Your task to perform on an android device: turn on showing notifications on the lock screen Image 0: 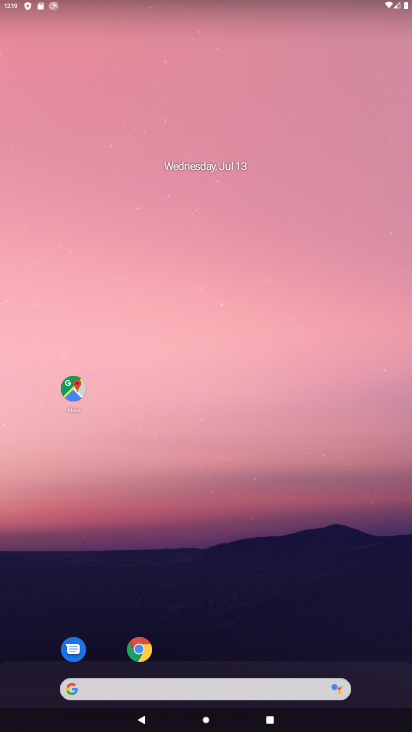
Step 0: drag from (239, 682) to (276, 176)
Your task to perform on an android device: turn on showing notifications on the lock screen Image 1: 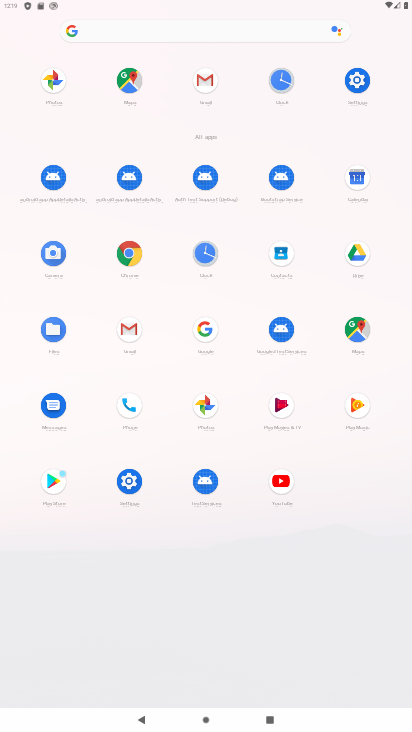
Step 1: click (132, 480)
Your task to perform on an android device: turn on showing notifications on the lock screen Image 2: 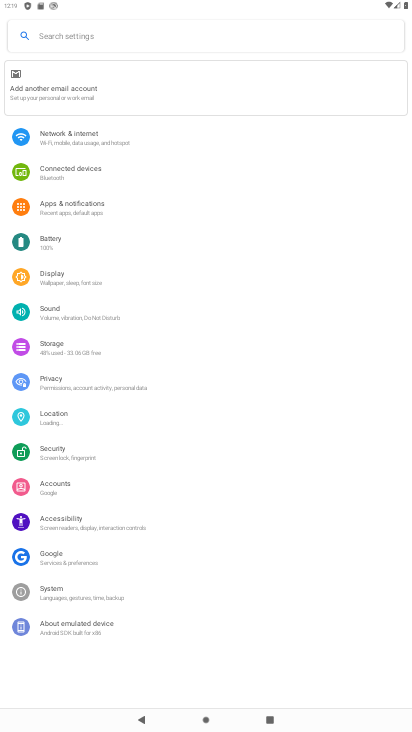
Step 2: click (91, 216)
Your task to perform on an android device: turn on showing notifications on the lock screen Image 3: 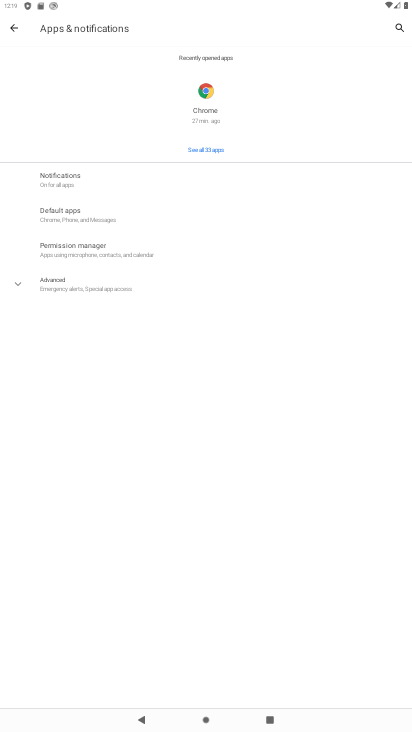
Step 3: click (141, 183)
Your task to perform on an android device: turn on showing notifications on the lock screen Image 4: 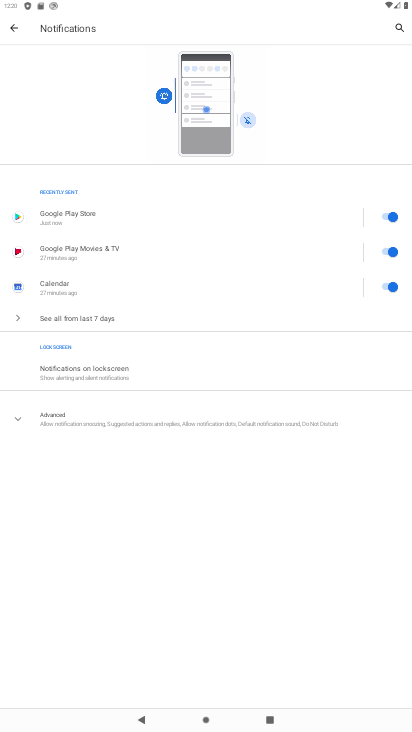
Step 4: click (142, 374)
Your task to perform on an android device: turn on showing notifications on the lock screen Image 5: 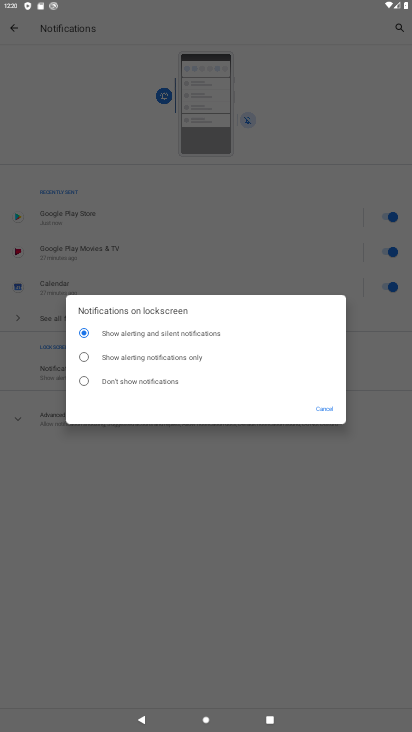
Step 5: task complete